Your task to perform on an android device: Open calendar and show me the first week of next month Image 0: 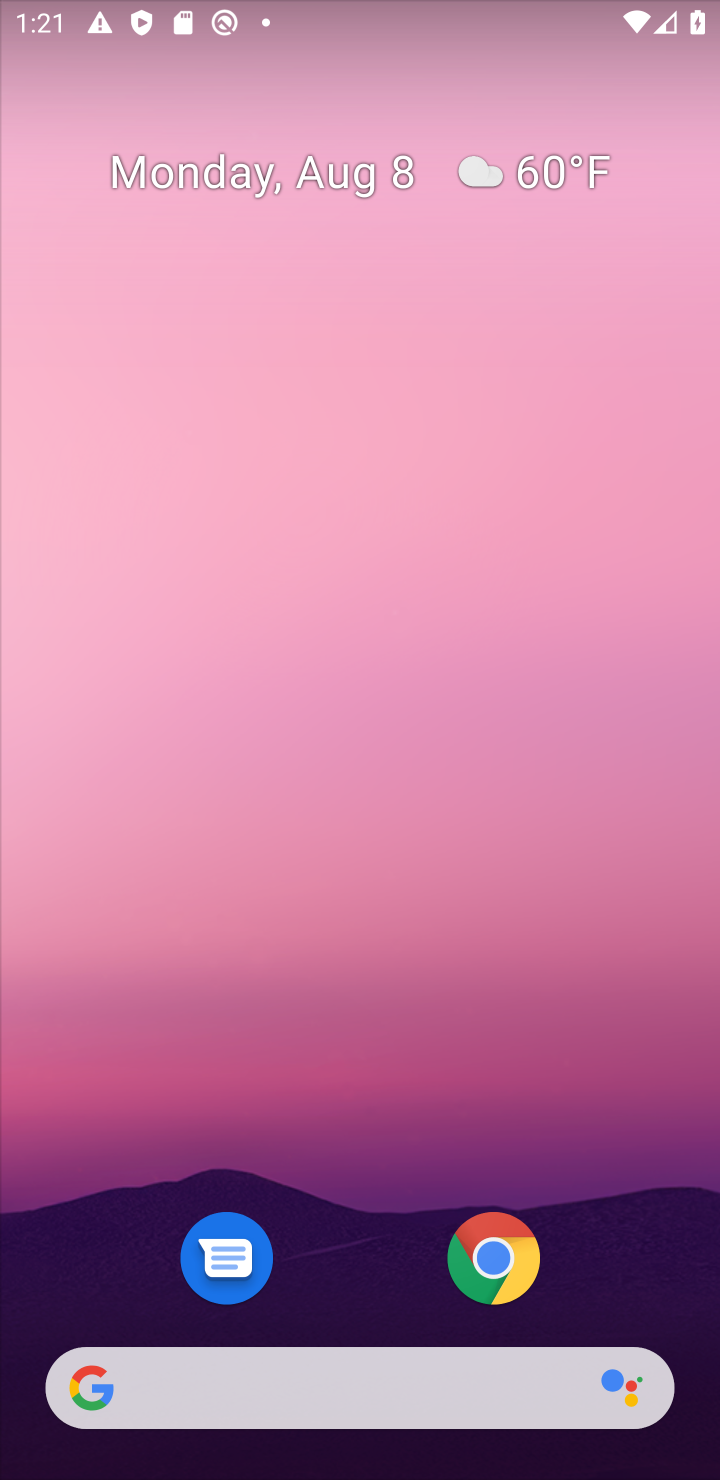
Step 0: drag from (218, 1386) to (426, 375)
Your task to perform on an android device: Open calendar and show me the first week of next month Image 1: 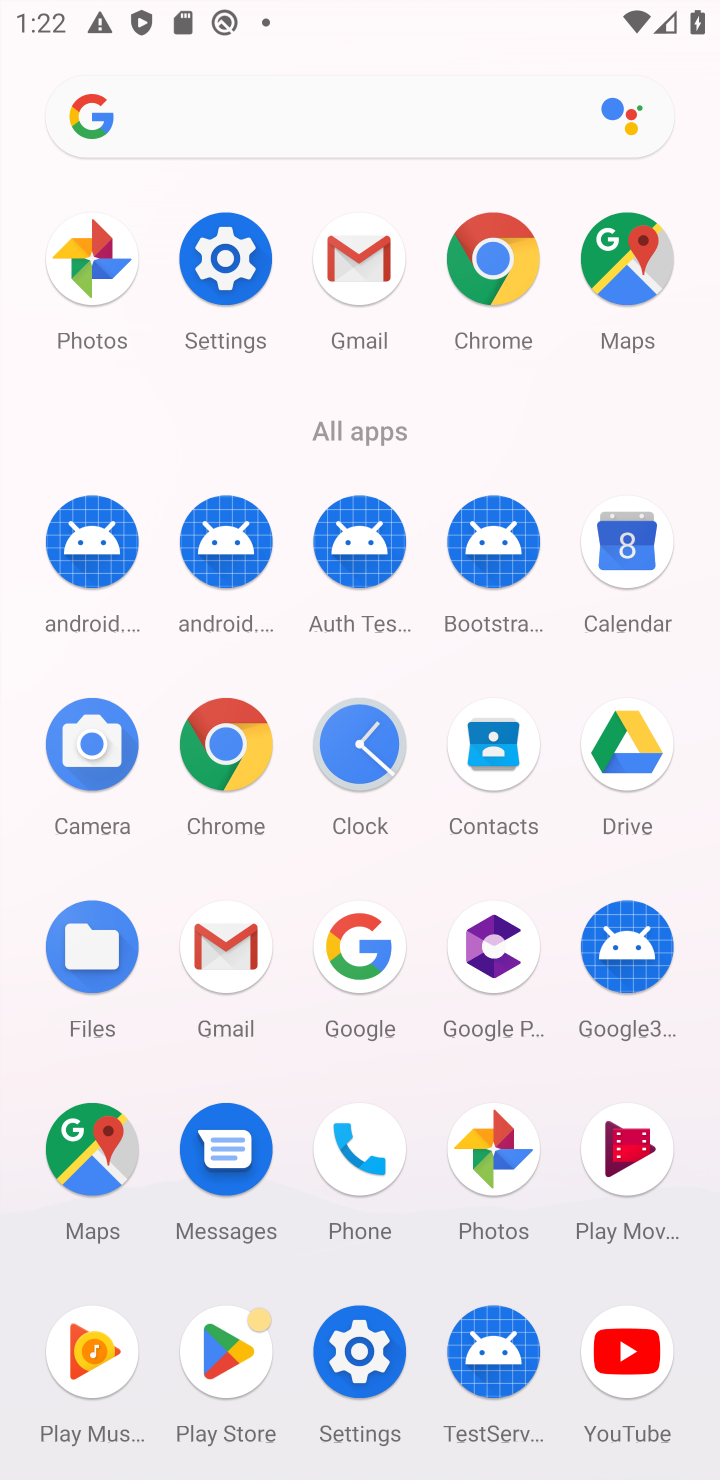
Step 1: click (664, 573)
Your task to perform on an android device: Open calendar and show me the first week of next month Image 2: 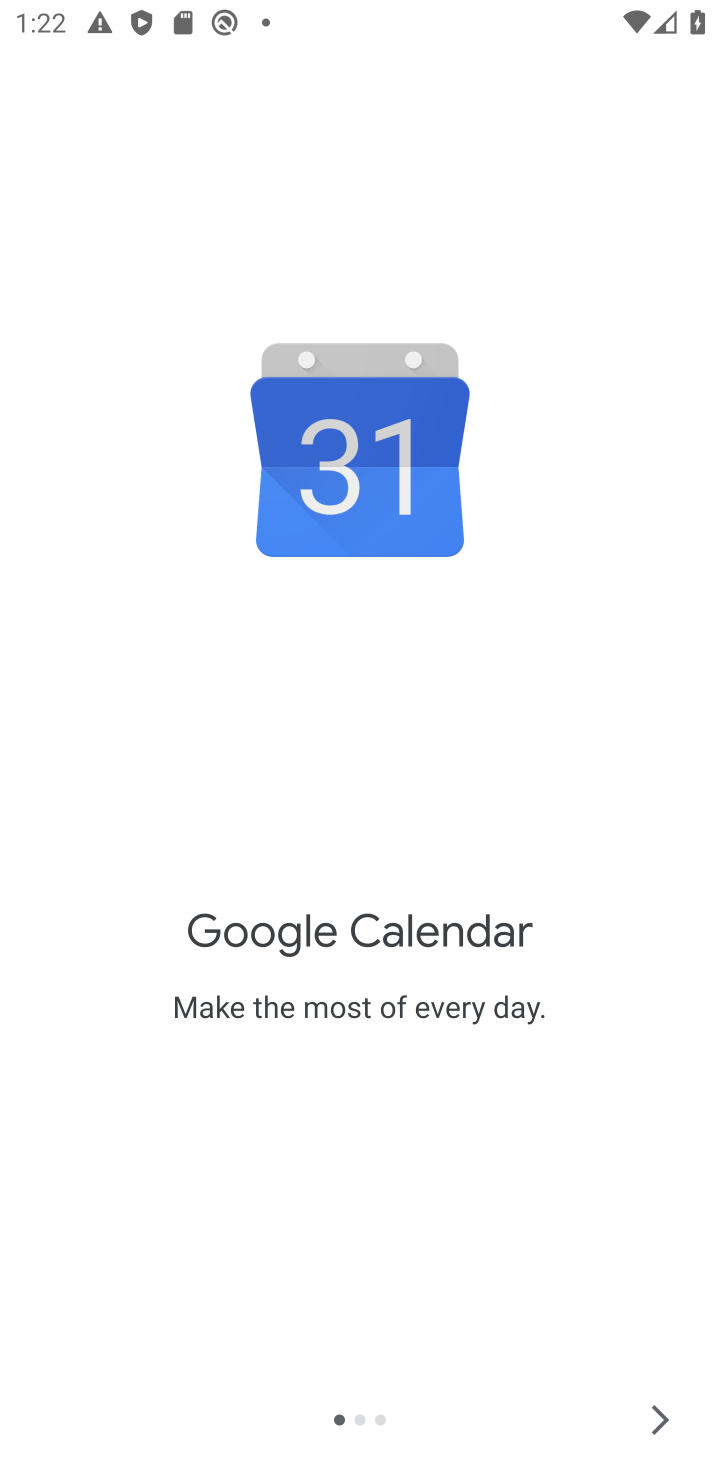
Step 2: click (657, 1409)
Your task to perform on an android device: Open calendar and show me the first week of next month Image 3: 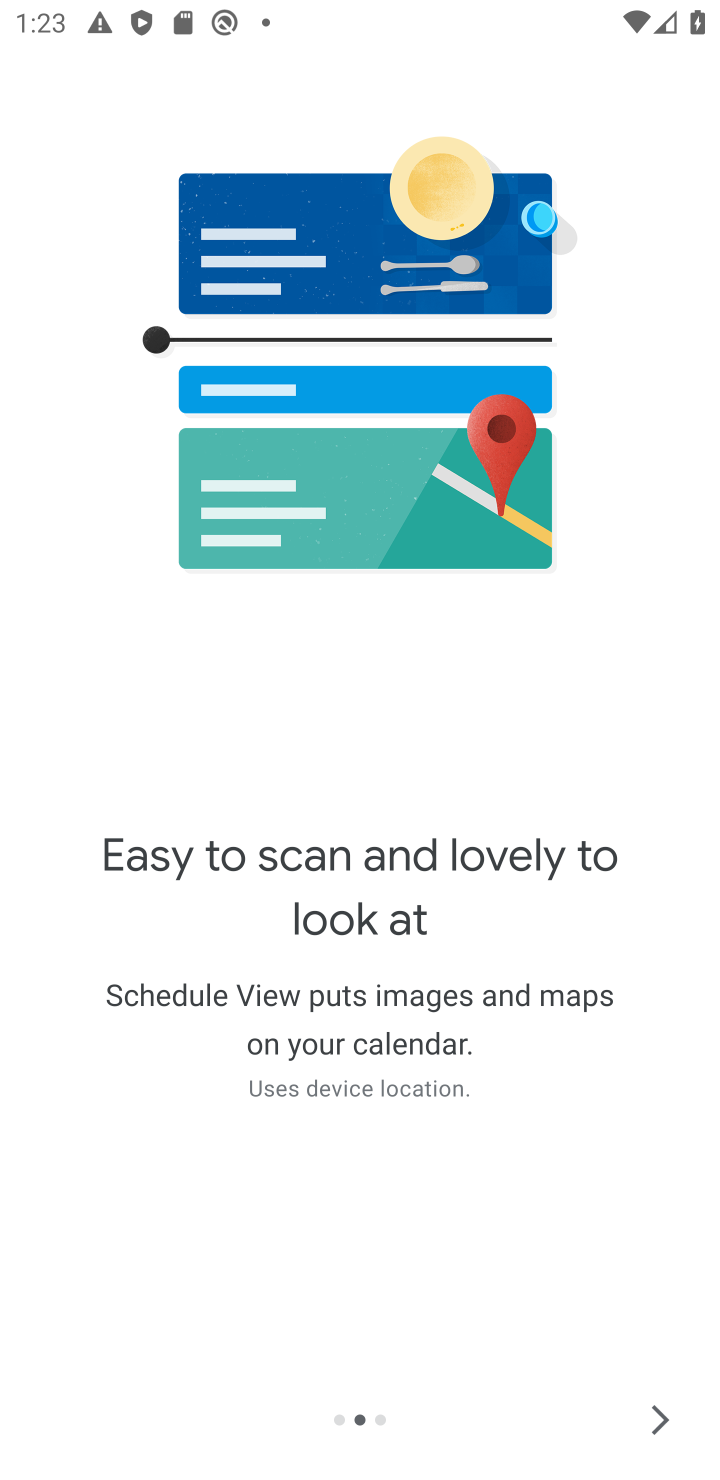
Step 3: click (649, 1445)
Your task to perform on an android device: Open calendar and show me the first week of next month Image 4: 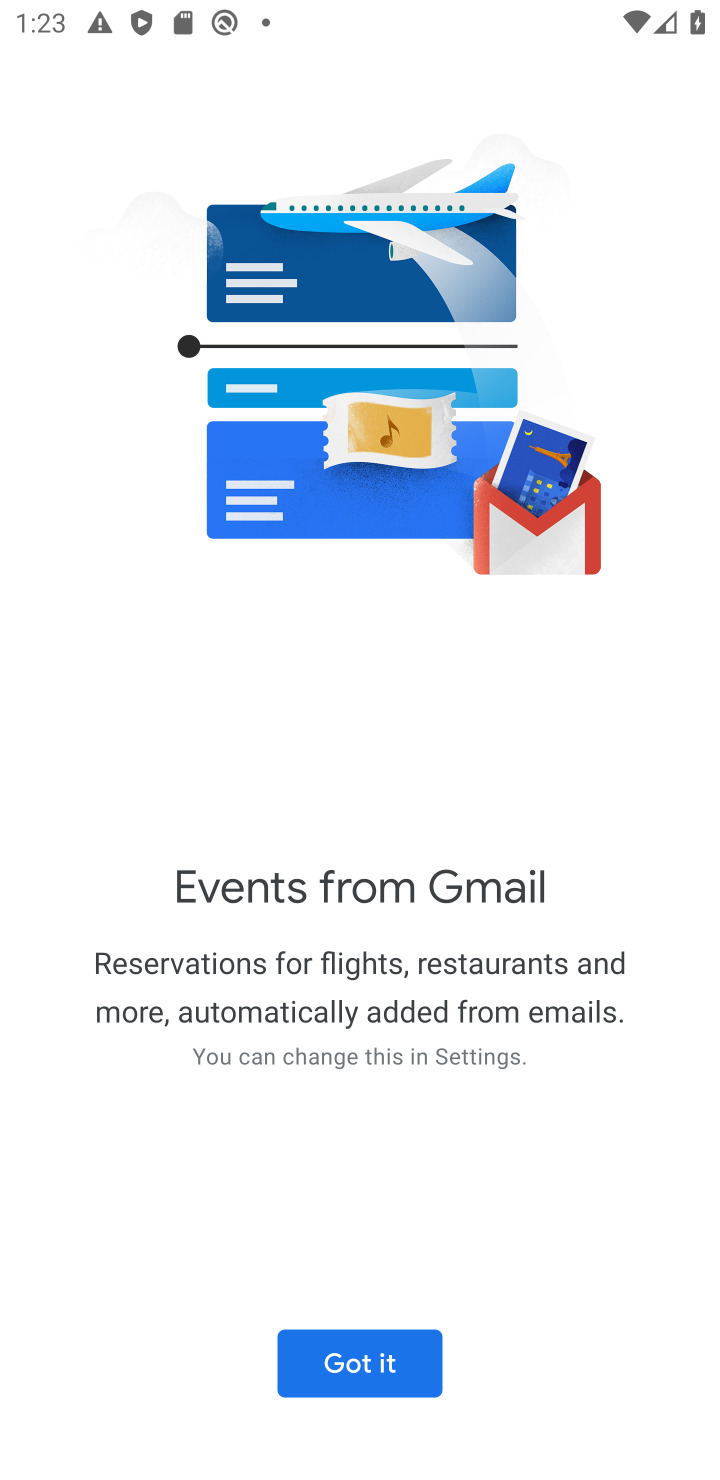
Step 4: click (387, 1347)
Your task to perform on an android device: Open calendar and show me the first week of next month Image 5: 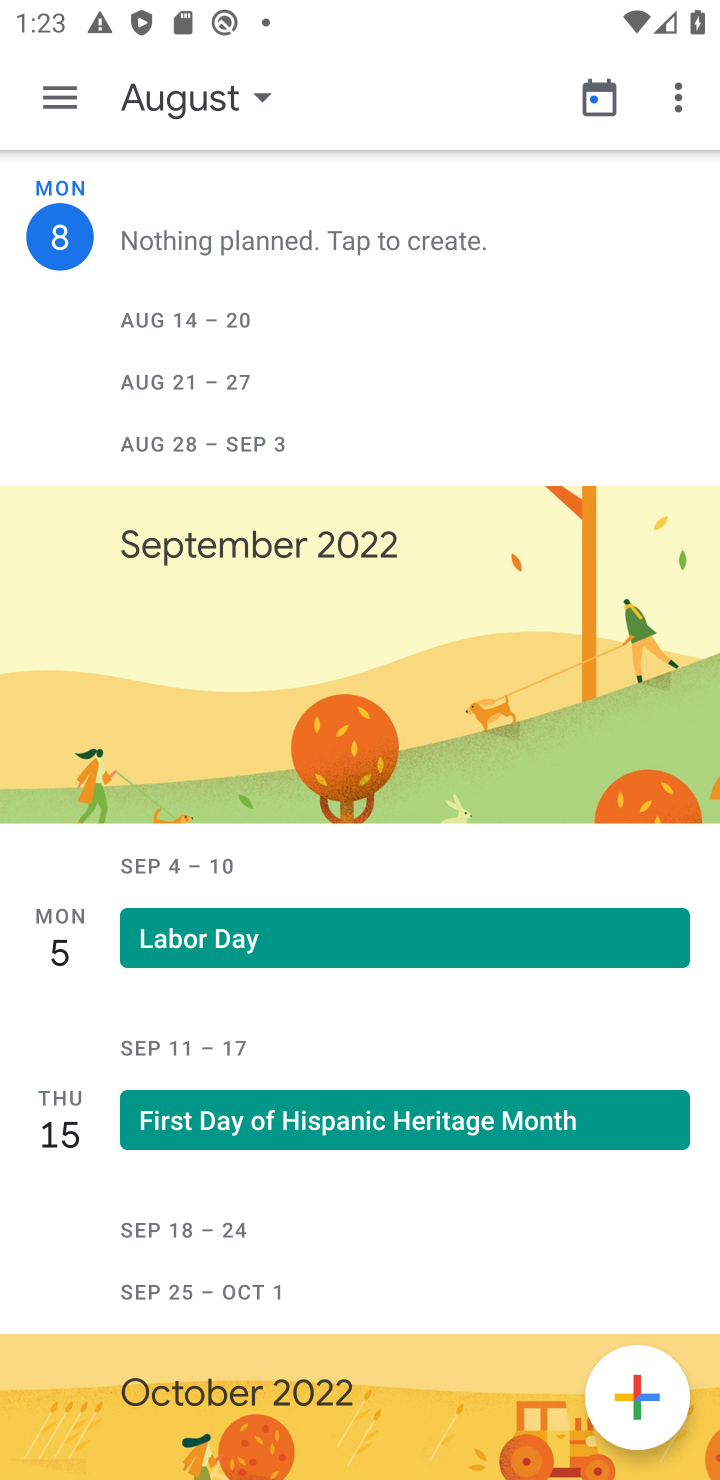
Step 5: click (263, 97)
Your task to perform on an android device: Open calendar and show me the first week of next month Image 6: 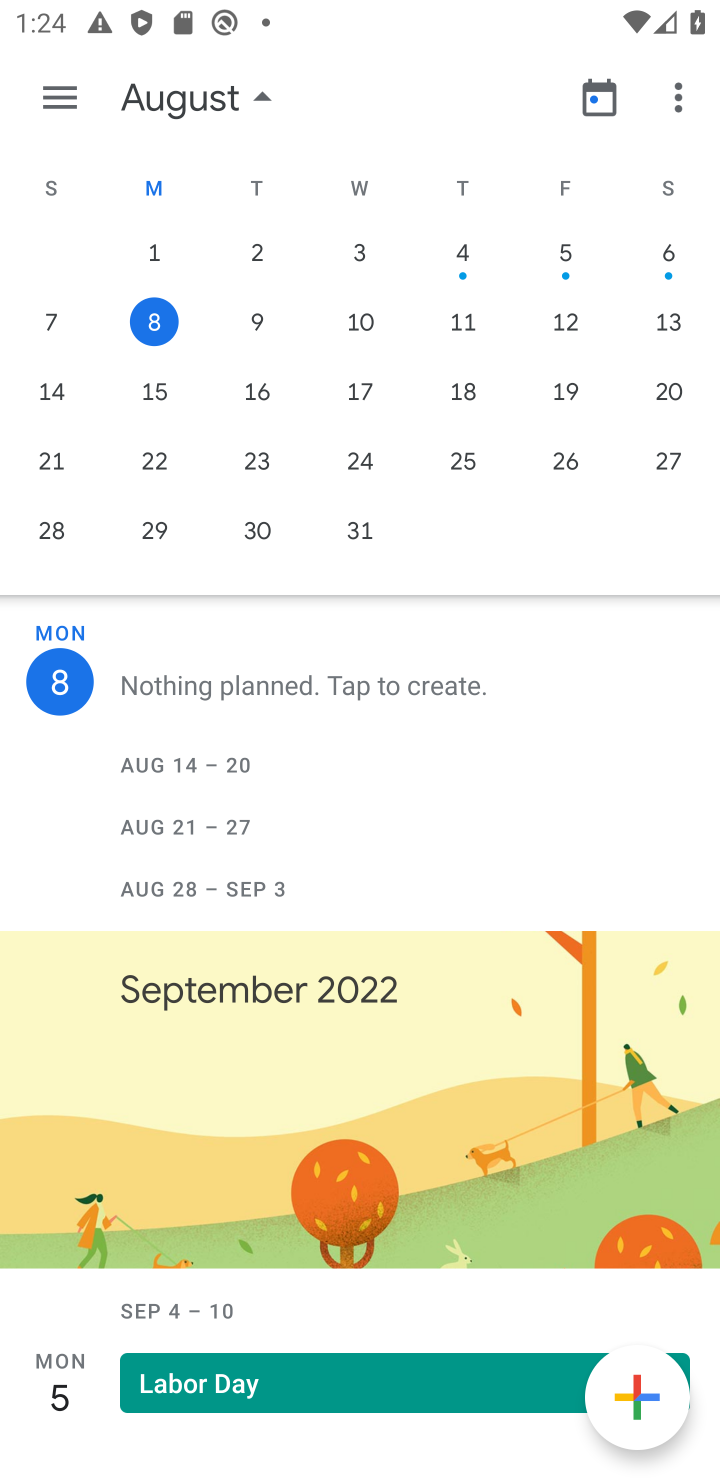
Step 6: drag from (367, 363) to (420, 11)
Your task to perform on an android device: Open calendar and show me the first week of next month Image 7: 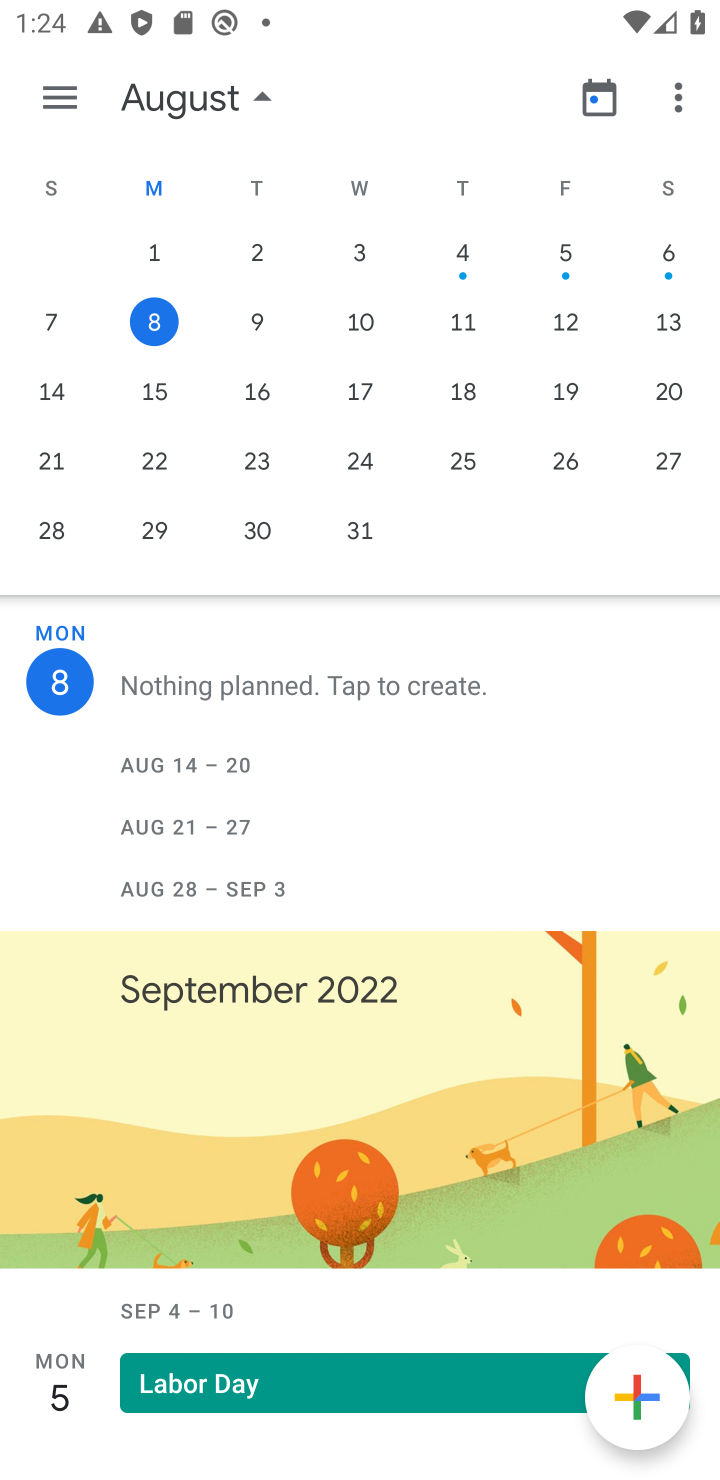
Step 7: click (167, 247)
Your task to perform on an android device: Open calendar and show me the first week of next month Image 8: 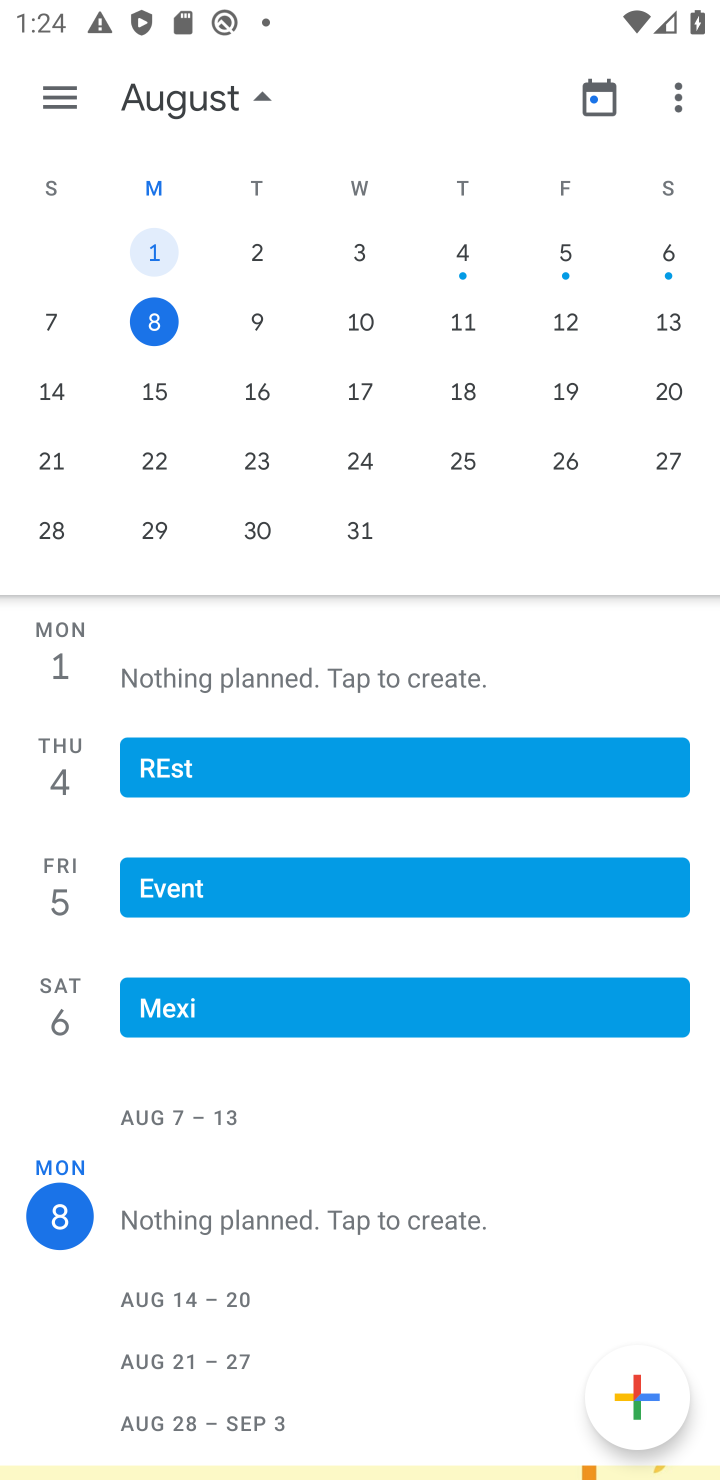
Step 8: drag from (633, 337) to (41, 305)
Your task to perform on an android device: Open calendar and show me the first week of next month Image 9: 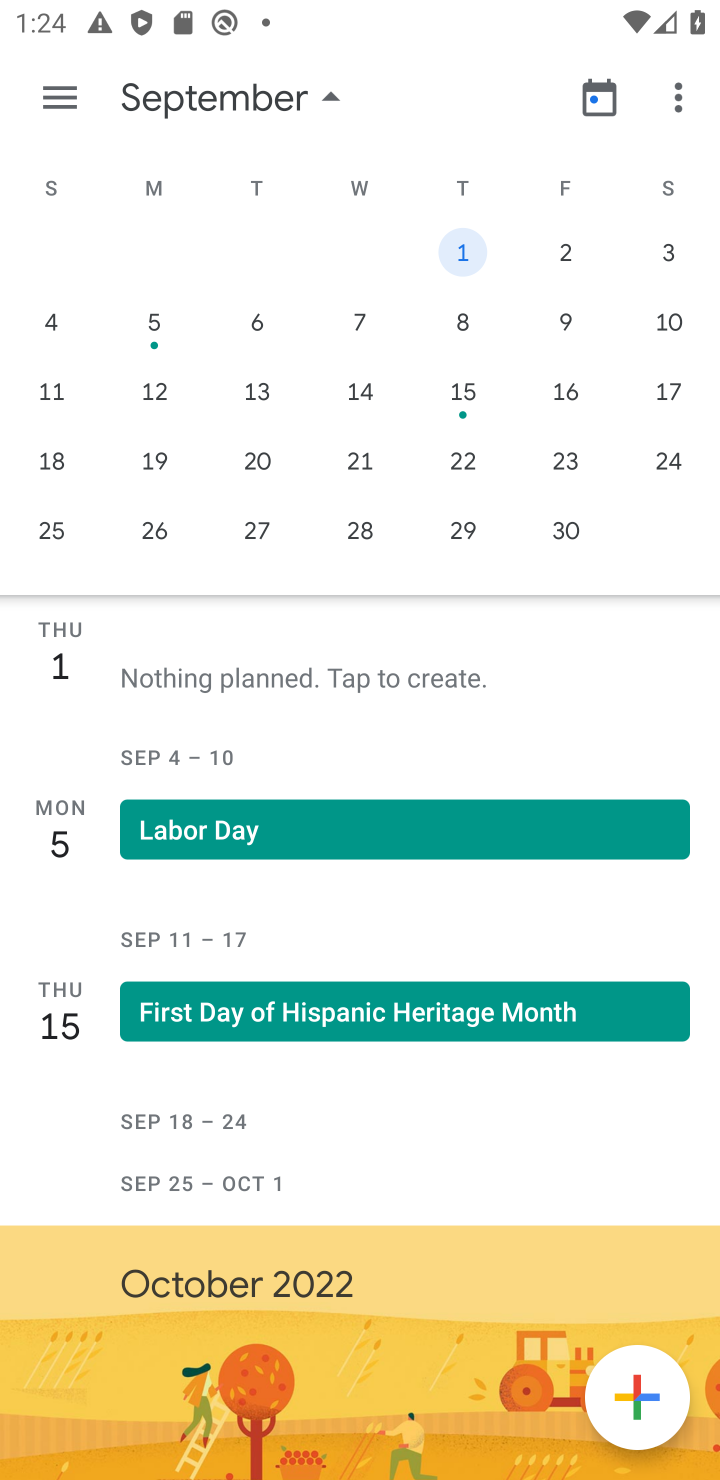
Step 9: click (427, 251)
Your task to perform on an android device: Open calendar and show me the first week of next month Image 10: 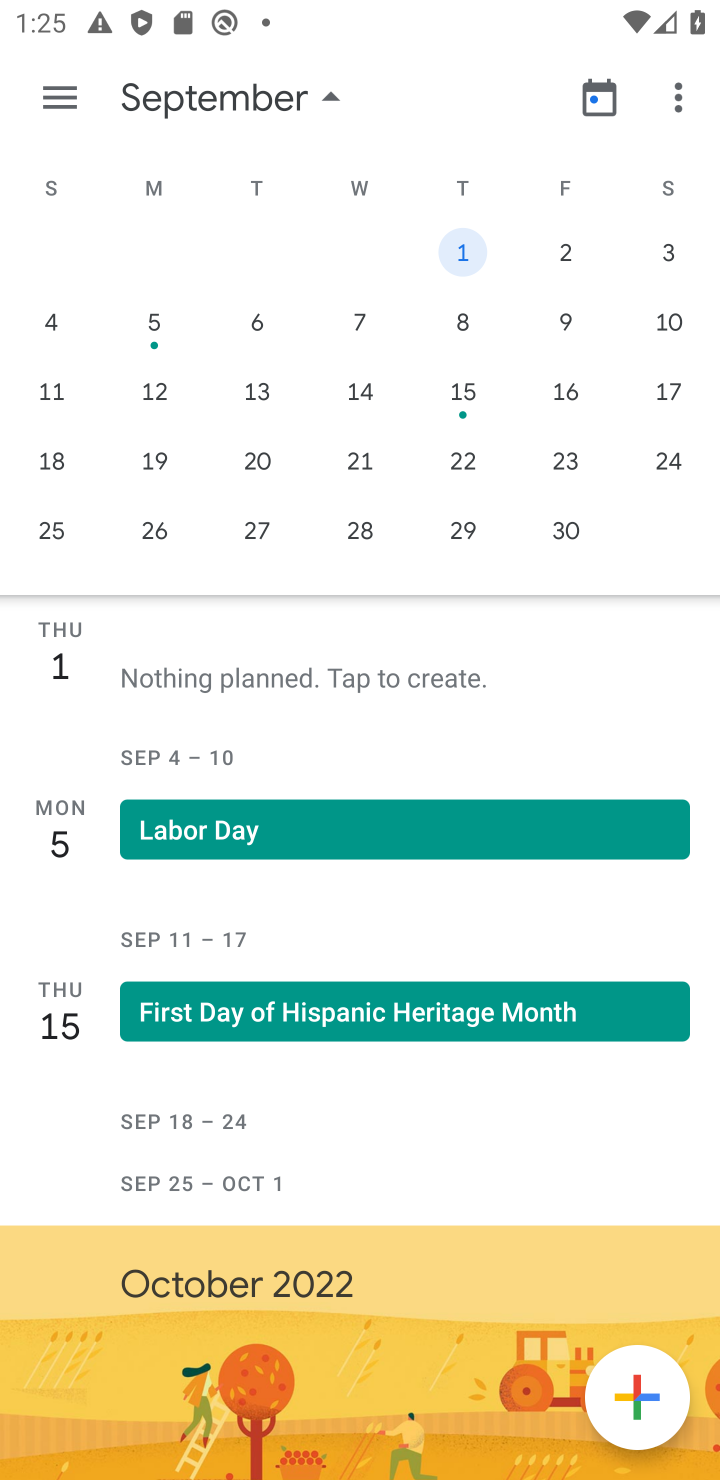
Step 10: task complete